Your task to perform on an android device: turn on javascript in the chrome app Image 0: 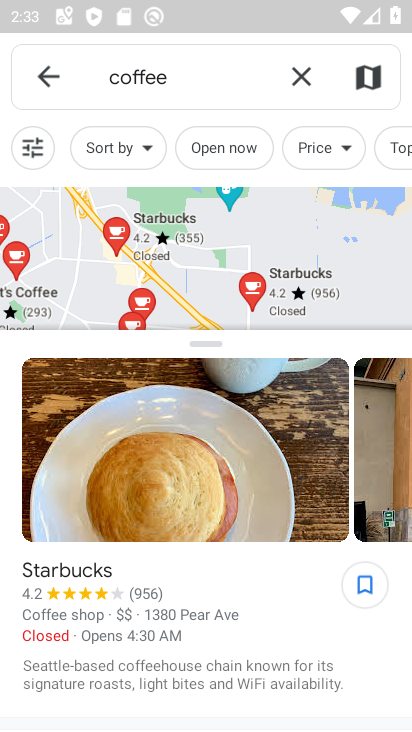
Step 0: press home button
Your task to perform on an android device: turn on javascript in the chrome app Image 1: 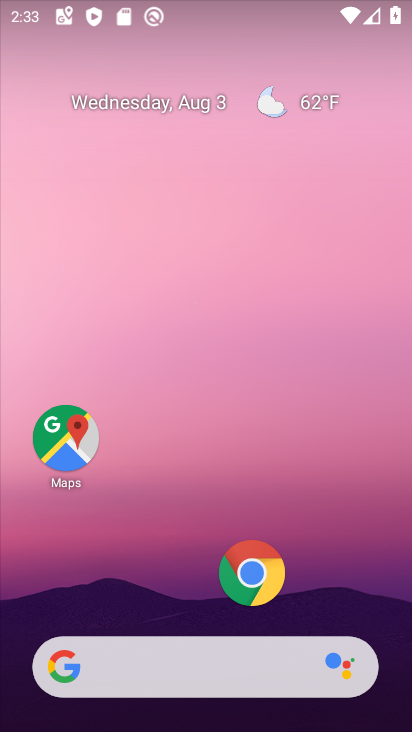
Step 1: click (257, 565)
Your task to perform on an android device: turn on javascript in the chrome app Image 2: 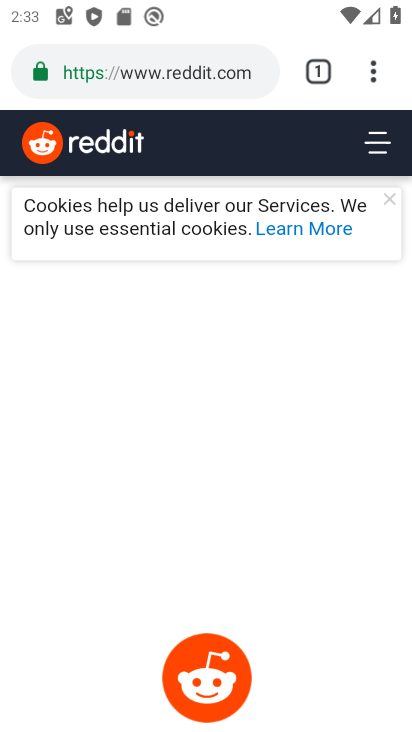
Step 2: click (372, 67)
Your task to perform on an android device: turn on javascript in the chrome app Image 3: 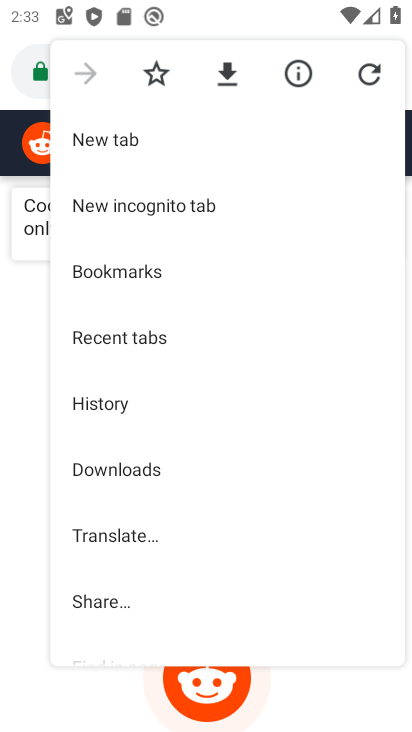
Step 3: drag from (137, 604) to (147, 188)
Your task to perform on an android device: turn on javascript in the chrome app Image 4: 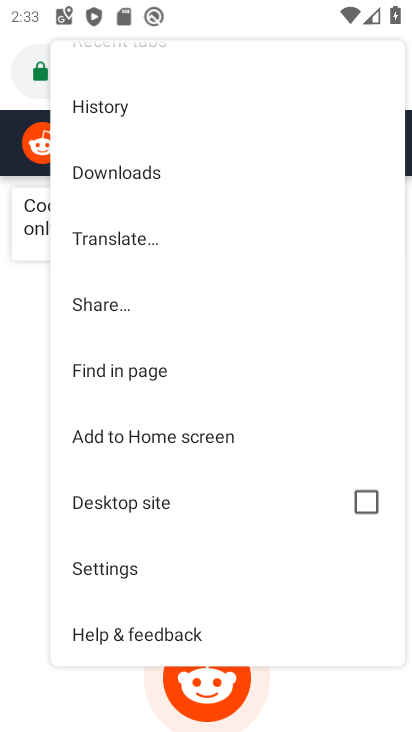
Step 4: click (126, 569)
Your task to perform on an android device: turn on javascript in the chrome app Image 5: 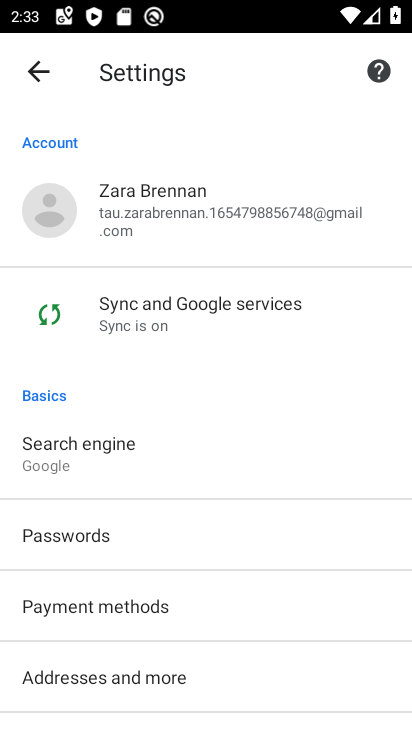
Step 5: drag from (173, 598) to (178, 197)
Your task to perform on an android device: turn on javascript in the chrome app Image 6: 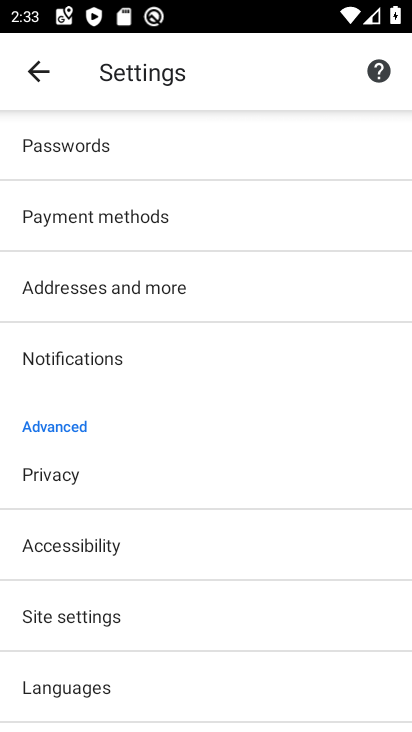
Step 6: click (110, 613)
Your task to perform on an android device: turn on javascript in the chrome app Image 7: 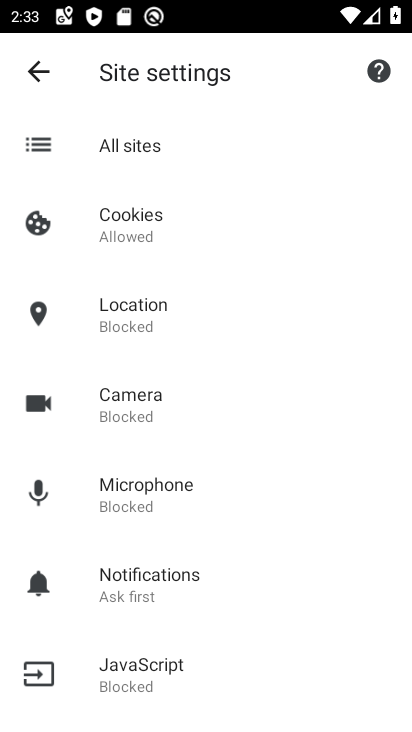
Step 7: click (166, 673)
Your task to perform on an android device: turn on javascript in the chrome app Image 8: 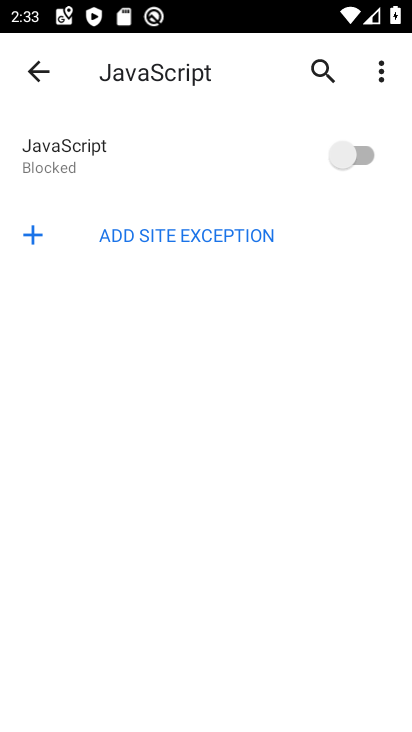
Step 8: click (311, 150)
Your task to perform on an android device: turn on javascript in the chrome app Image 9: 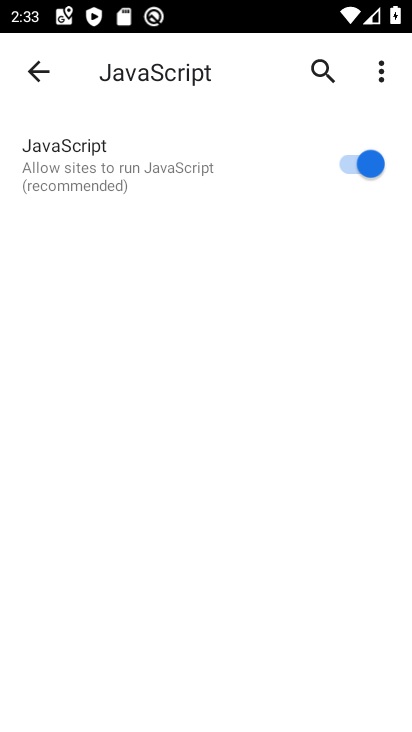
Step 9: task complete